Your task to perform on an android device: Go to Android settings Image 0: 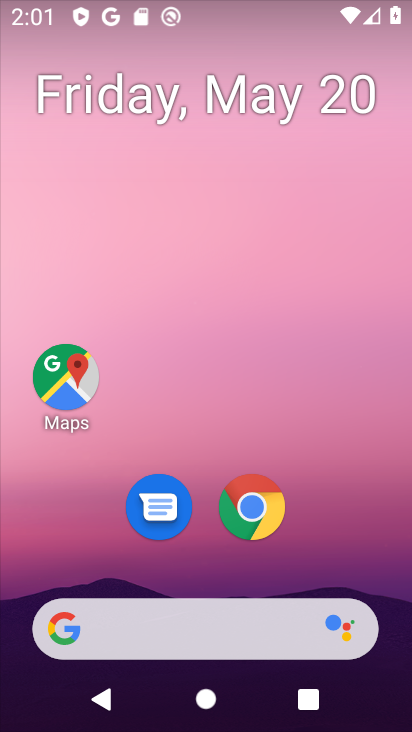
Step 0: drag from (204, 568) to (79, 2)
Your task to perform on an android device: Go to Android settings Image 1: 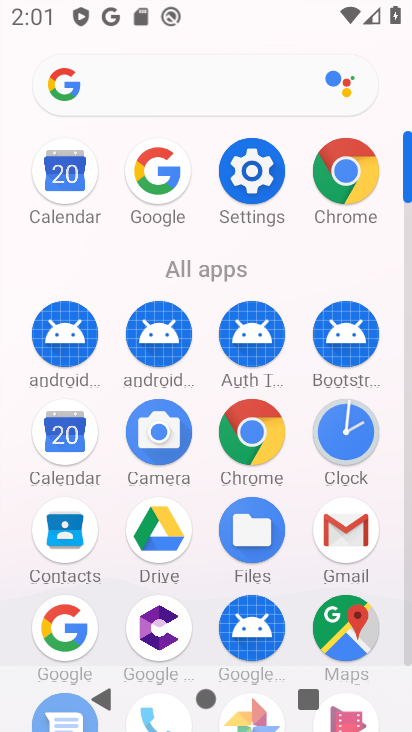
Step 1: click (228, 185)
Your task to perform on an android device: Go to Android settings Image 2: 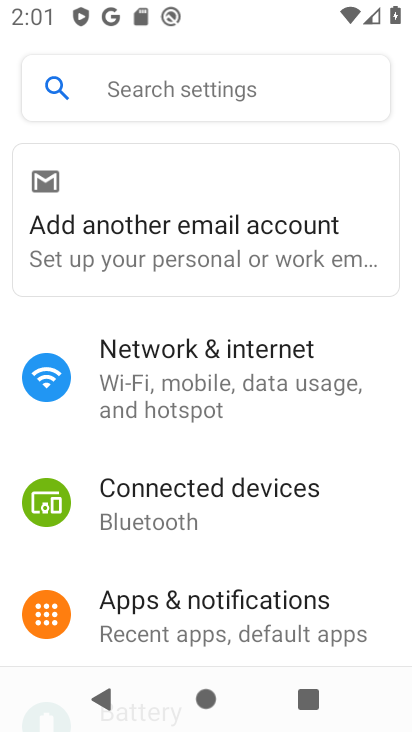
Step 2: drag from (194, 614) to (166, 196)
Your task to perform on an android device: Go to Android settings Image 3: 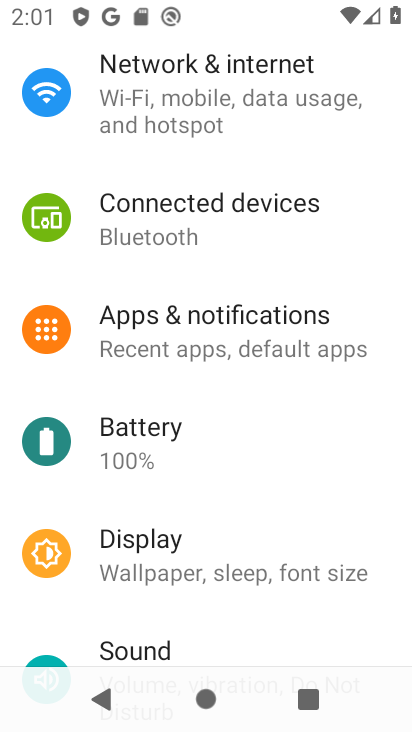
Step 3: drag from (230, 532) to (263, 180)
Your task to perform on an android device: Go to Android settings Image 4: 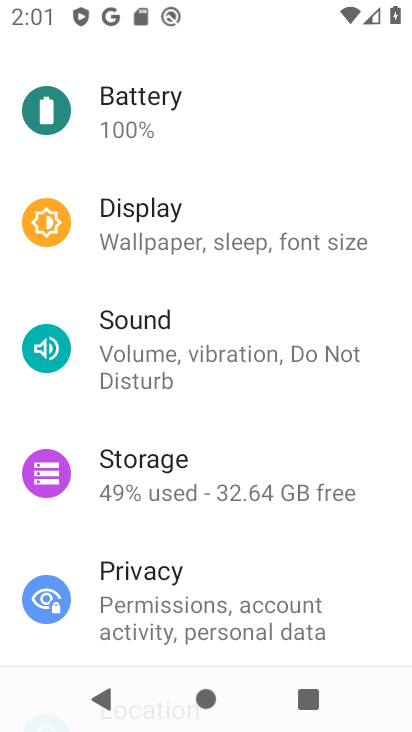
Step 4: drag from (272, 599) to (229, 245)
Your task to perform on an android device: Go to Android settings Image 5: 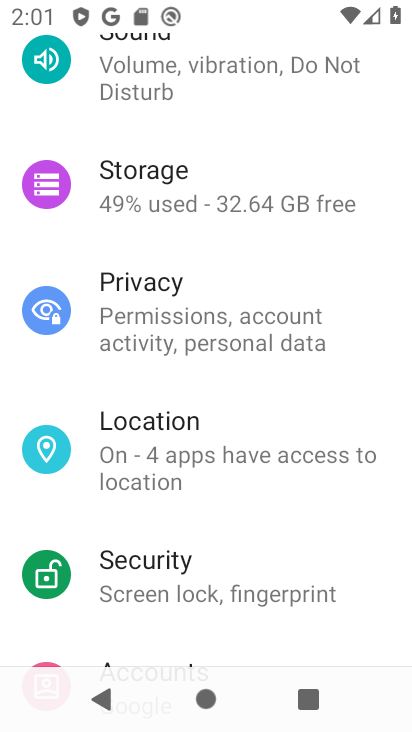
Step 5: drag from (245, 550) to (224, 304)
Your task to perform on an android device: Go to Android settings Image 6: 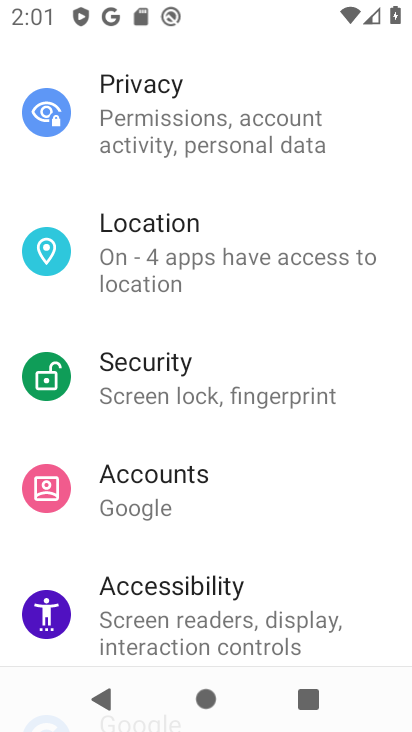
Step 6: drag from (245, 543) to (239, 278)
Your task to perform on an android device: Go to Android settings Image 7: 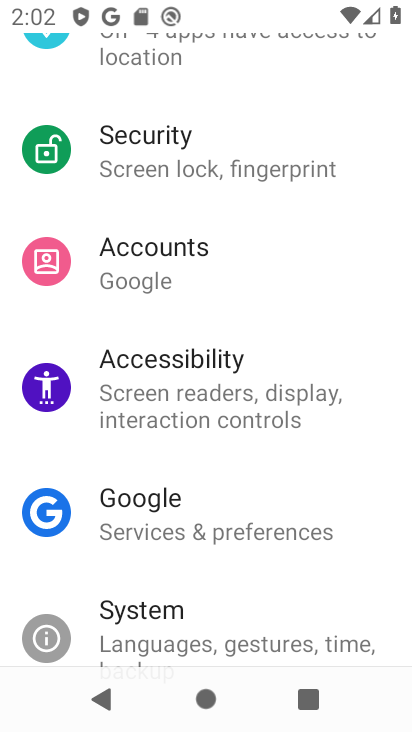
Step 7: drag from (216, 580) to (204, 335)
Your task to perform on an android device: Go to Android settings Image 8: 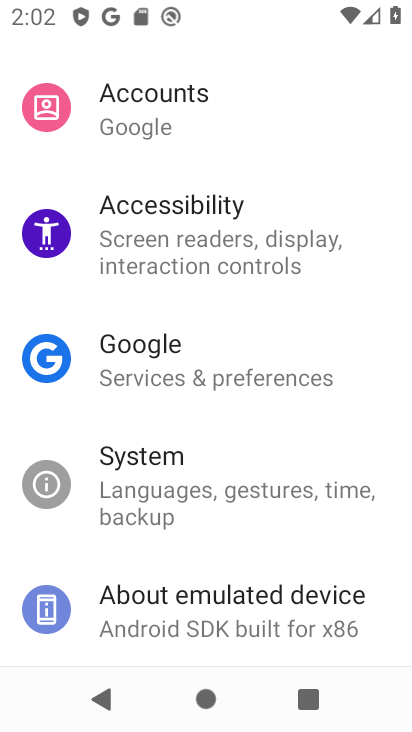
Step 8: click (140, 480)
Your task to perform on an android device: Go to Android settings Image 9: 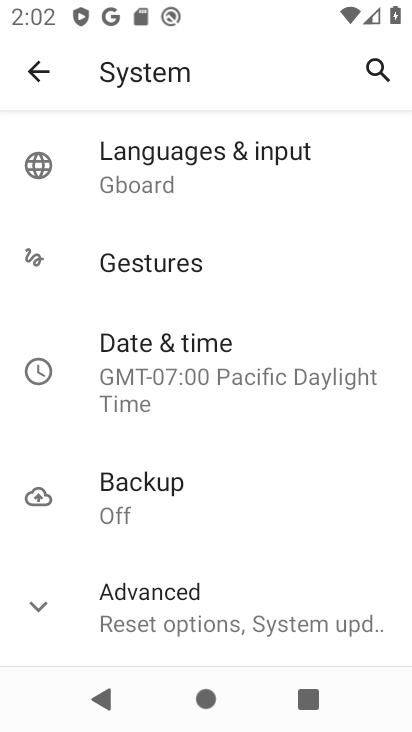
Step 9: task complete